Your task to perform on an android device: turn on wifi Image 0: 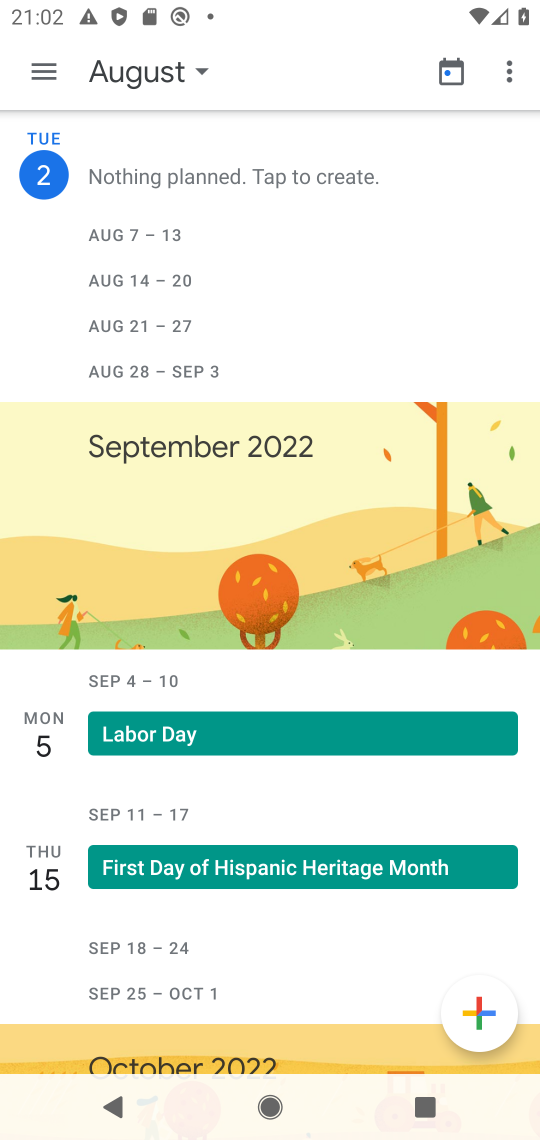
Step 0: press home button
Your task to perform on an android device: turn on wifi Image 1: 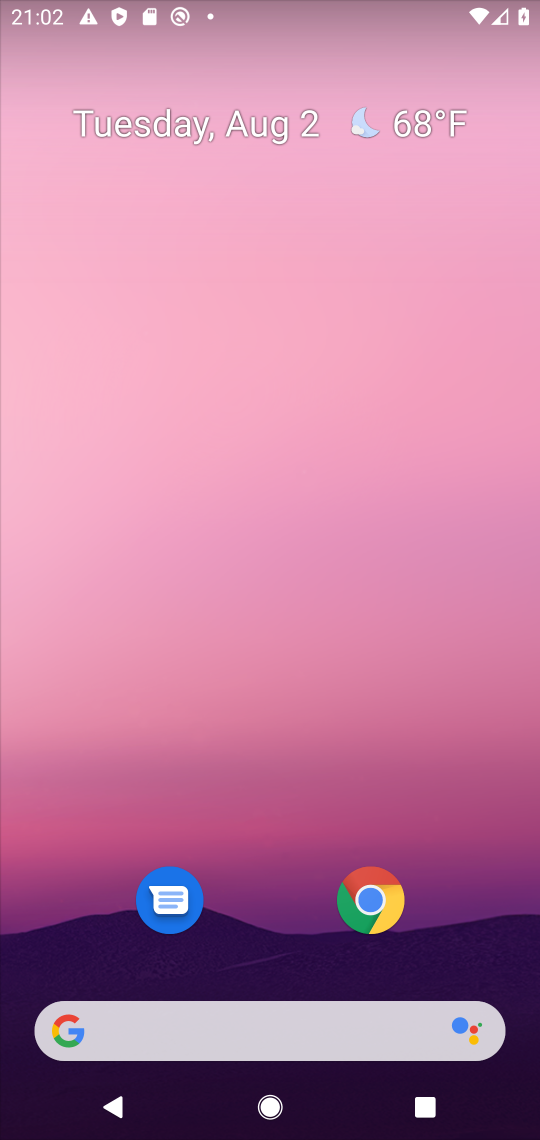
Step 1: drag from (279, 884) to (342, 22)
Your task to perform on an android device: turn on wifi Image 2: 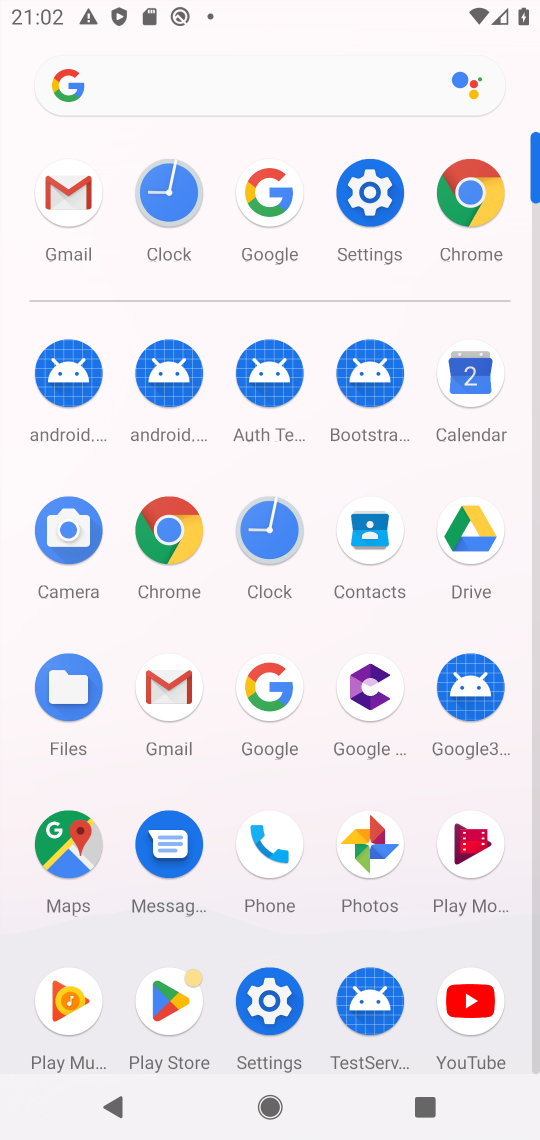
Step 2: click (365, 194)
Your task to perform on an android device: turn on wifi Image 3: 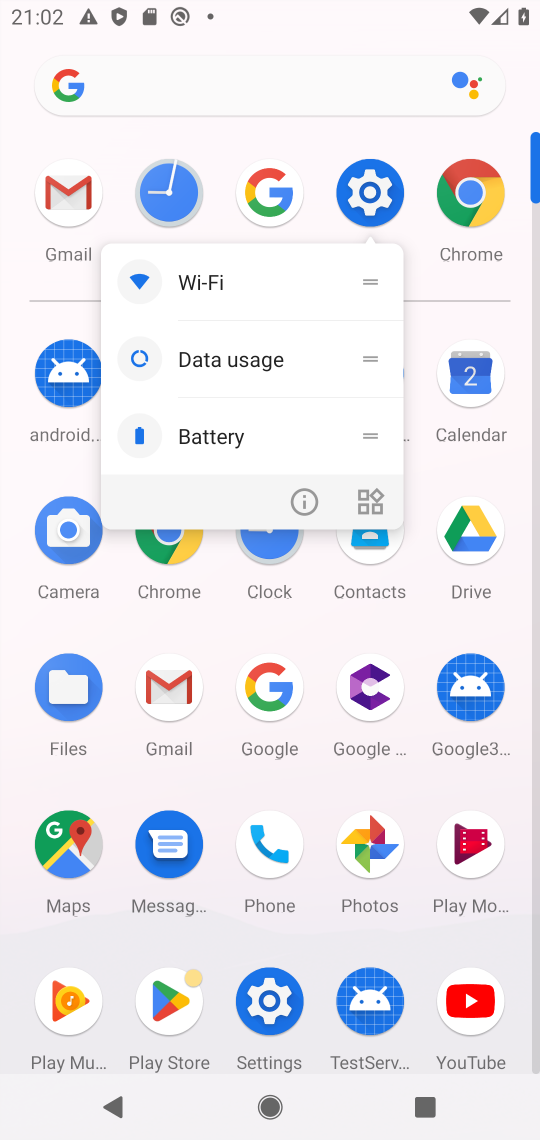
Step 3: click (365, 194)
Your task to perform on an android device: turn on wifi Image 4: 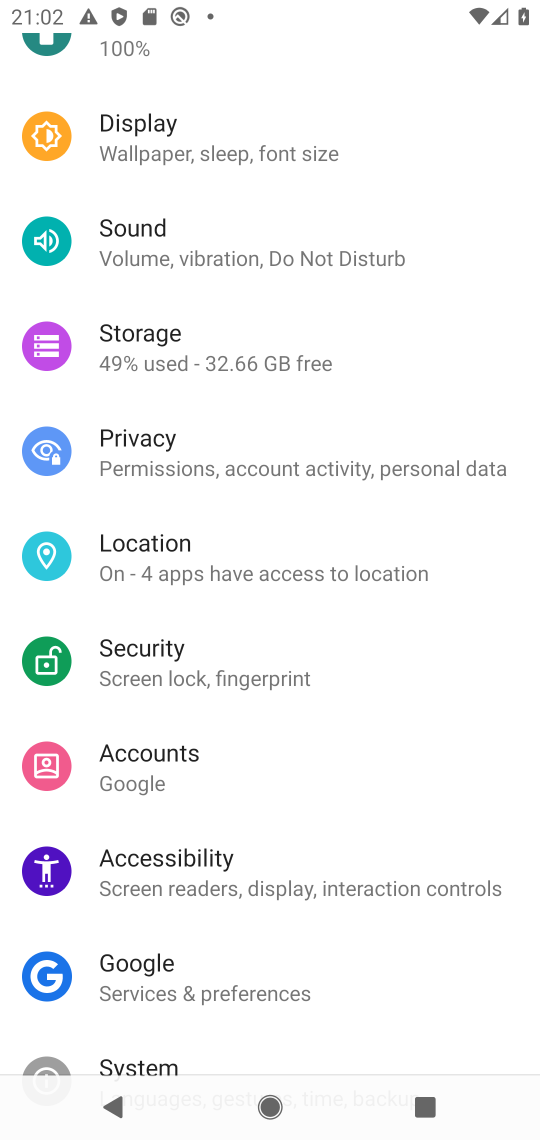
Step 4: drag from (308, 298) to (353, 1017)
Your task to perform on an android device: turn on wifi Image 5: 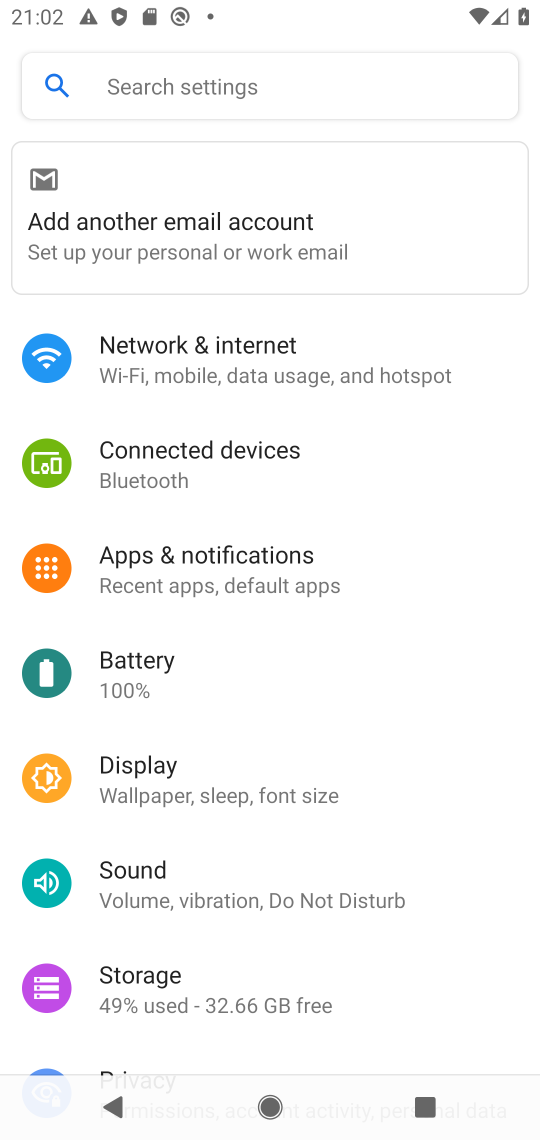
Step 5: click (257, 361)
Your task to perform on an android device: turn on wifi Image 6: 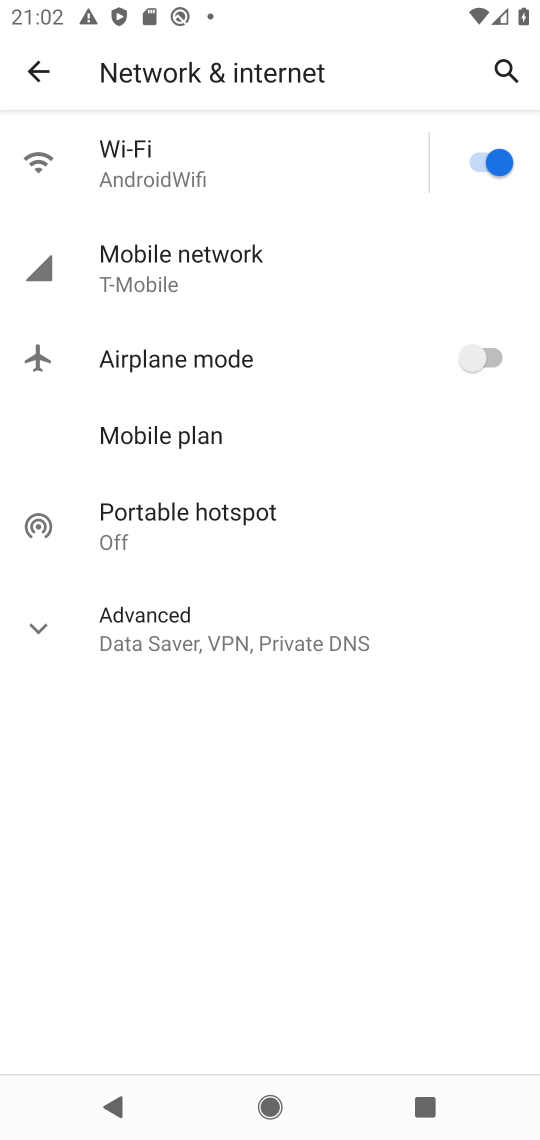
Step 6: task complete